Your task to perform on an android device: Open the web browser Image 0: 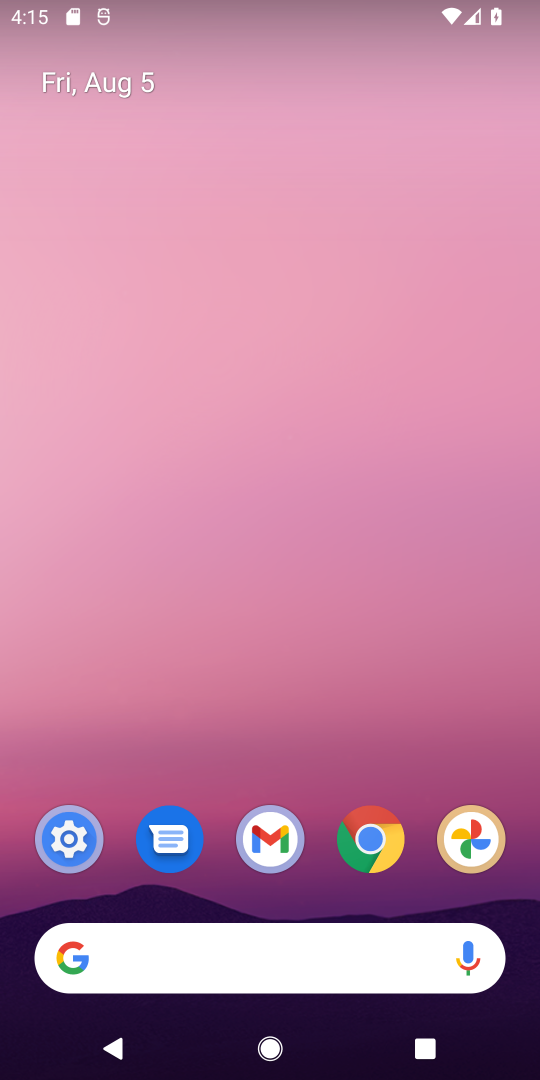
Step 0: click (382, 858)
Your task to perform on an android device: Open the web browser Image 1: 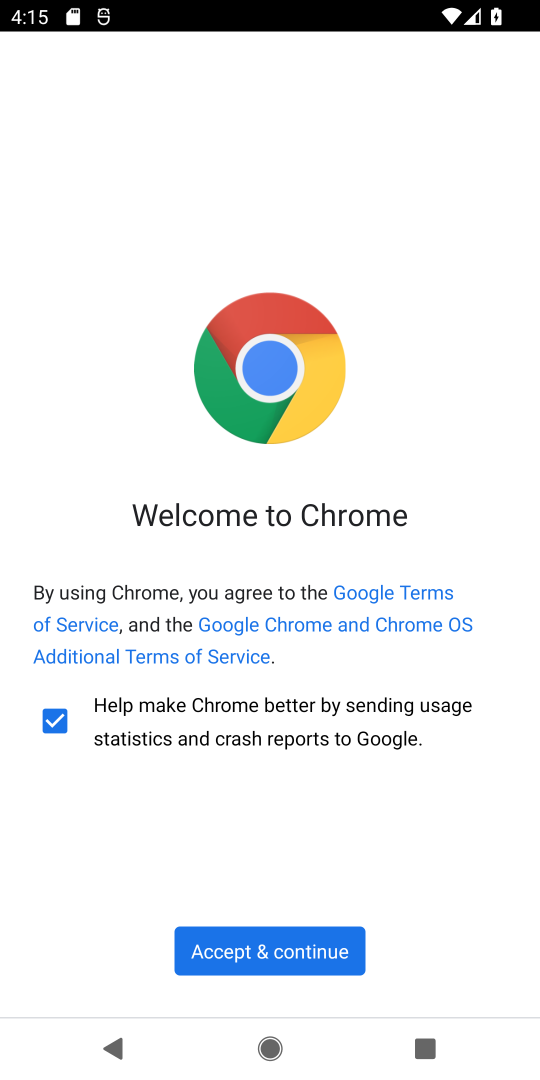
Step 1: task complete